Your task to perform on an android device: check storage Image 0: 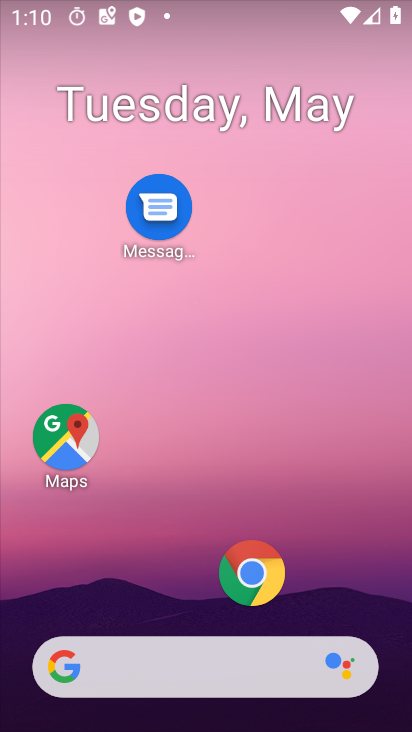
Step 0: drag from (176, 555) to (269, 80)
Your task to perform on an android device: check storage Image 1: 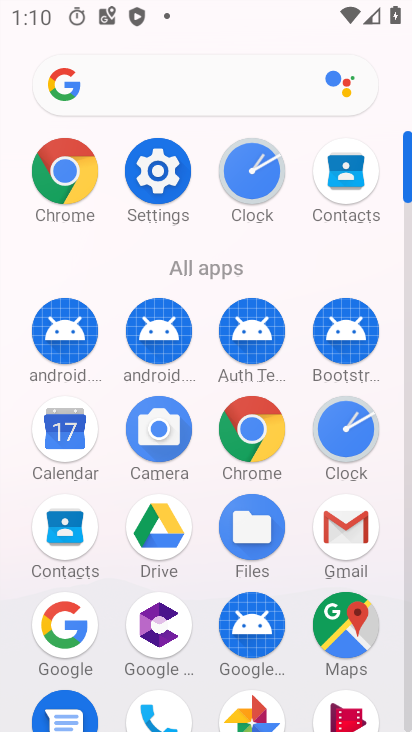
Step 1: click (178, 191)
Your task to perform on an android device: check storage Image 2: 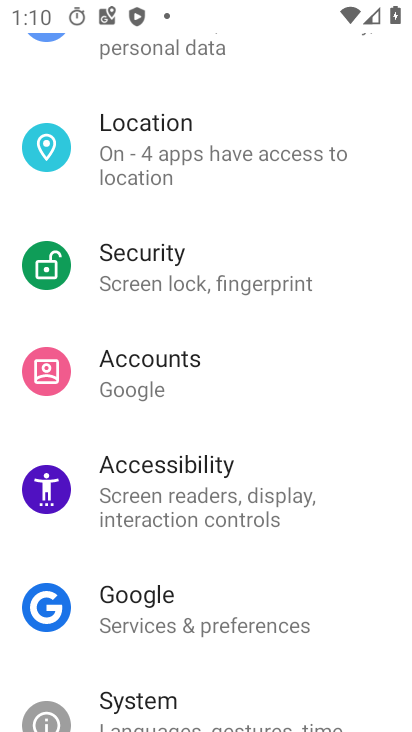
Step 2: drag from (165, 256) to (166, 636)
Your task to perform on an android device: check storage Image 3: 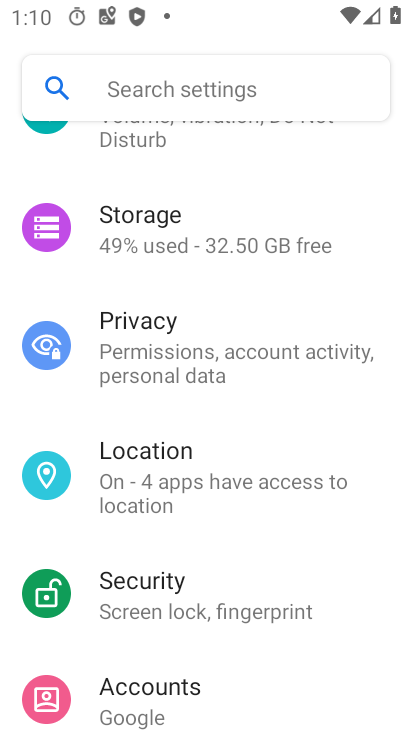
Step 3: drag from (183, 253) to (205, 425)
Your task to perform on an android device: check storage Image 4: 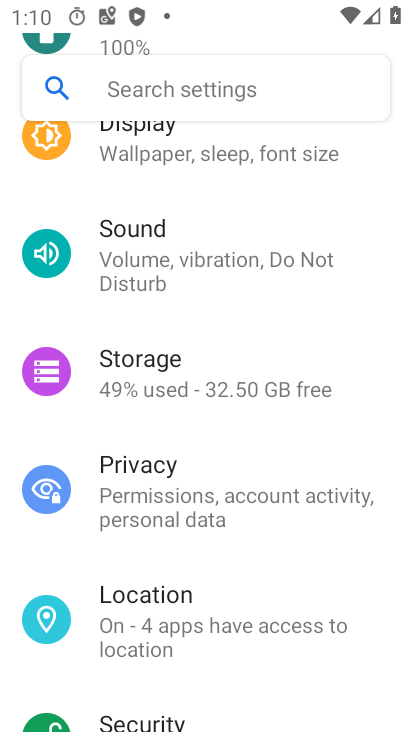
Step 4: click (161, 372)
Your task to perform on an android device: check storage Image 5: 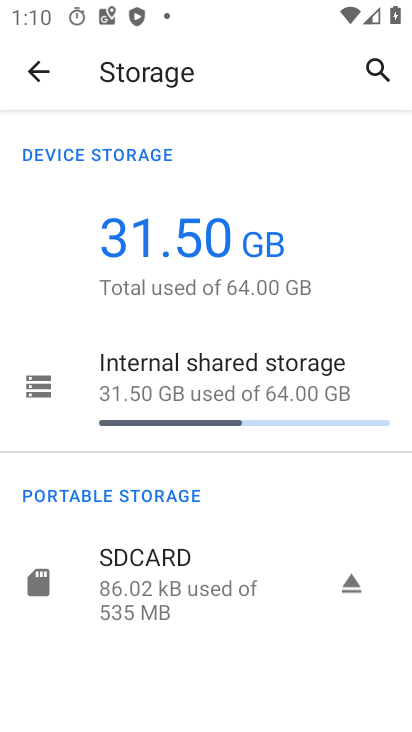
Step 5: click (153, 370)
Your task to perform on an android device: check storage Image 6: 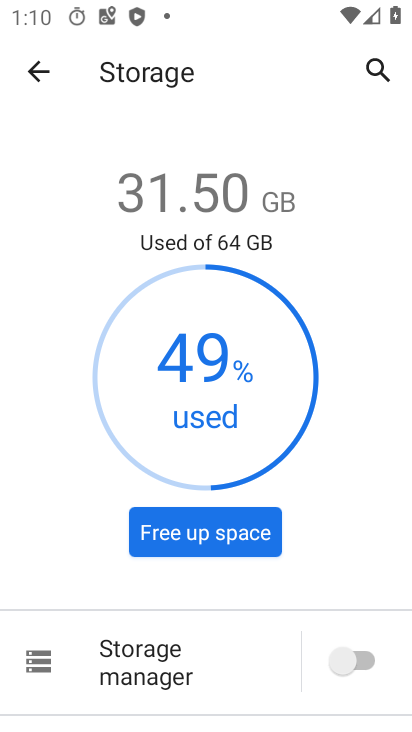
Step 6: task complete